Your task to perform on an android device: toggle notification dots Image 0: 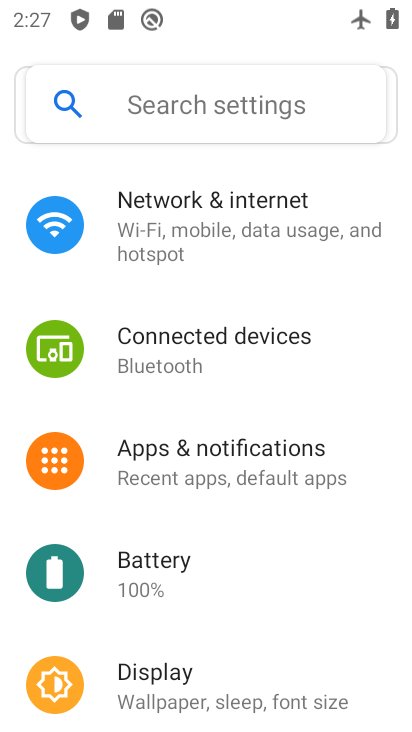
Step 0: click (242, 468)
Your task to perform on an android device: toggle notification dots Image 1: 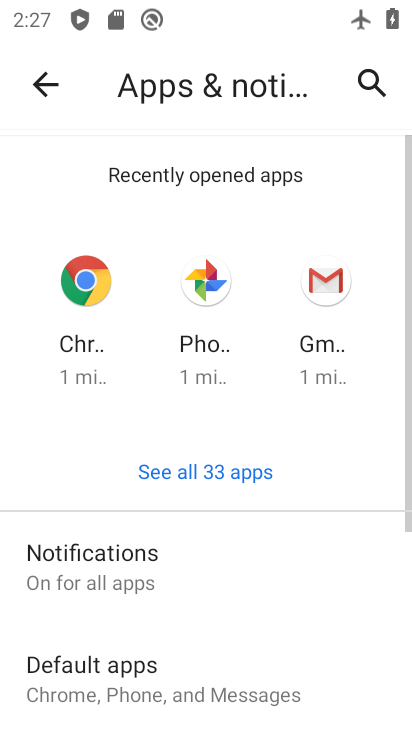
Step 1: click (209, 565)
Your task to perform on an android device: toggle notification dots Image 2: 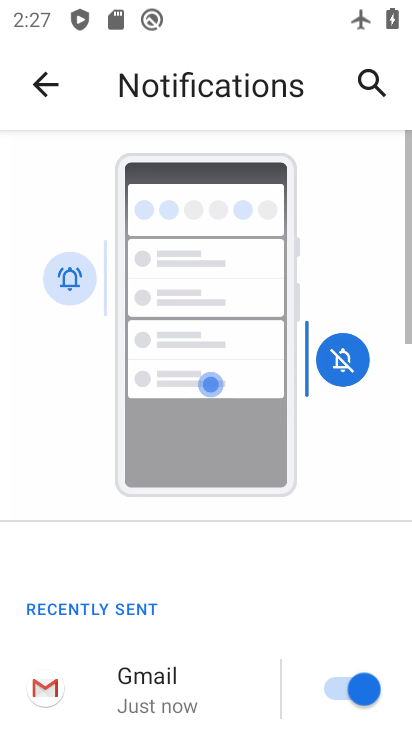
Step 2: drag from (173, 684) to (334, 235)
Your task to perform on an android device: toggle notification dots Image 3: 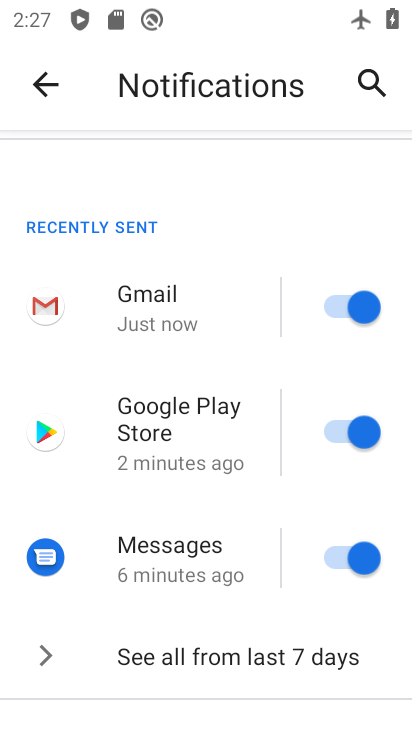
Step 3: drag from (148, 653) to (254, 259)
Your task to perform on an android device: toggle notification dots Image 4: 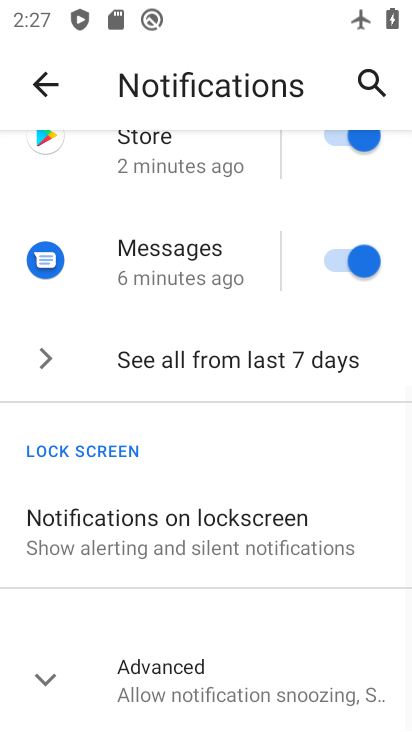
Step 4: click (166, 673)
Your task to perform on an android device: toggle notification dots Image 5: 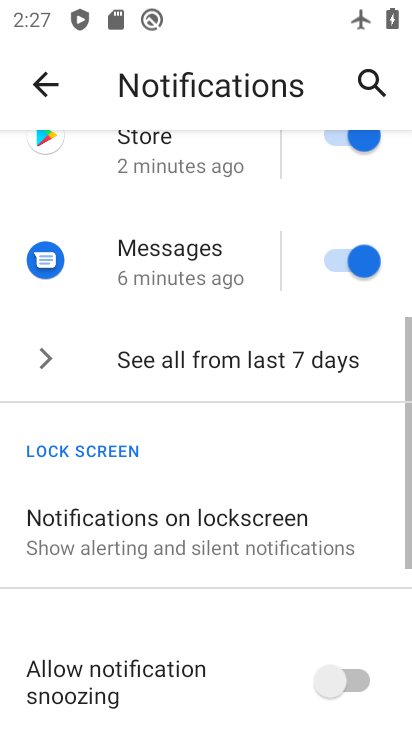
Step 5: drag from (112, 717) to (225, 381)
Your task to perform on an android device: toggle notification dots Image 6: 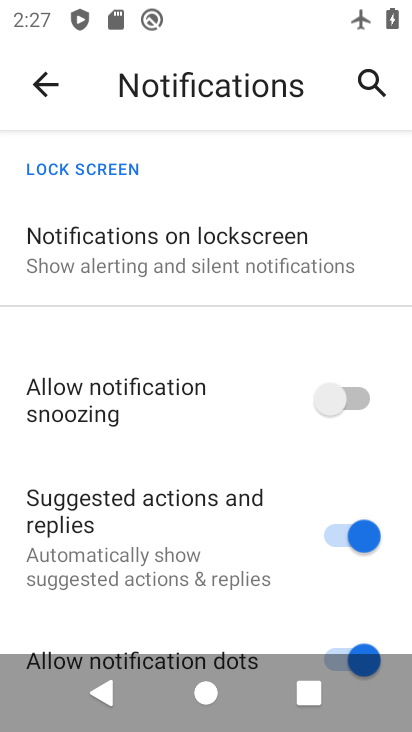
Step 6: drag from (198, 567) to (269, 333)
Your task to perform on an android device: toggle notification dots Image 7: 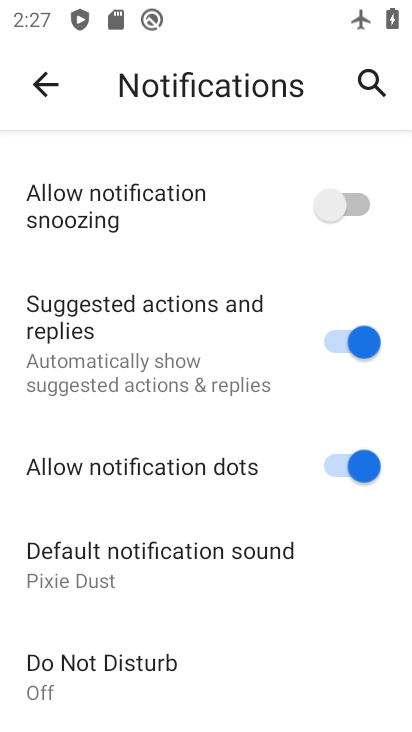
Step 7: click (338, 472)
Your task to perform on an android device: toggle notification dots Image 8: 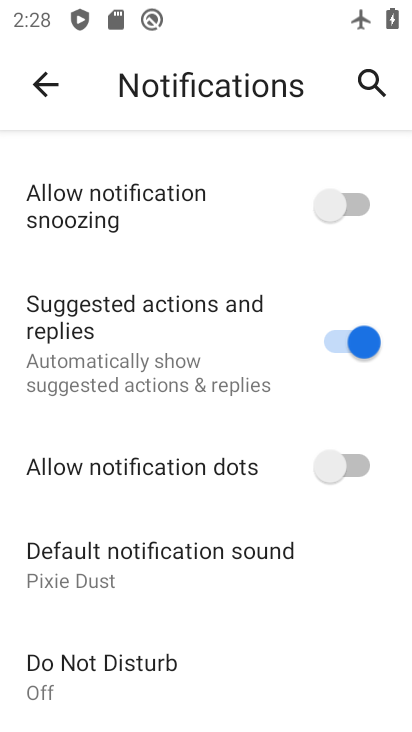
Step 8: task complete